Your task to perform on an android device: Open notification settings Image 0: 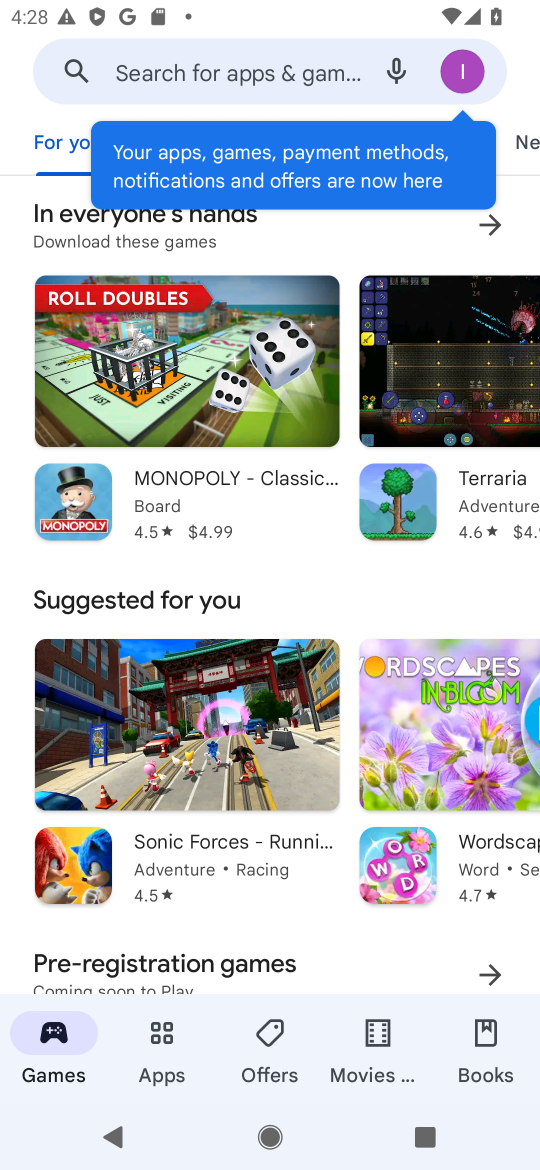
Step 0: press home button
Your task to perform on an android device: Open notification settings Image 1: 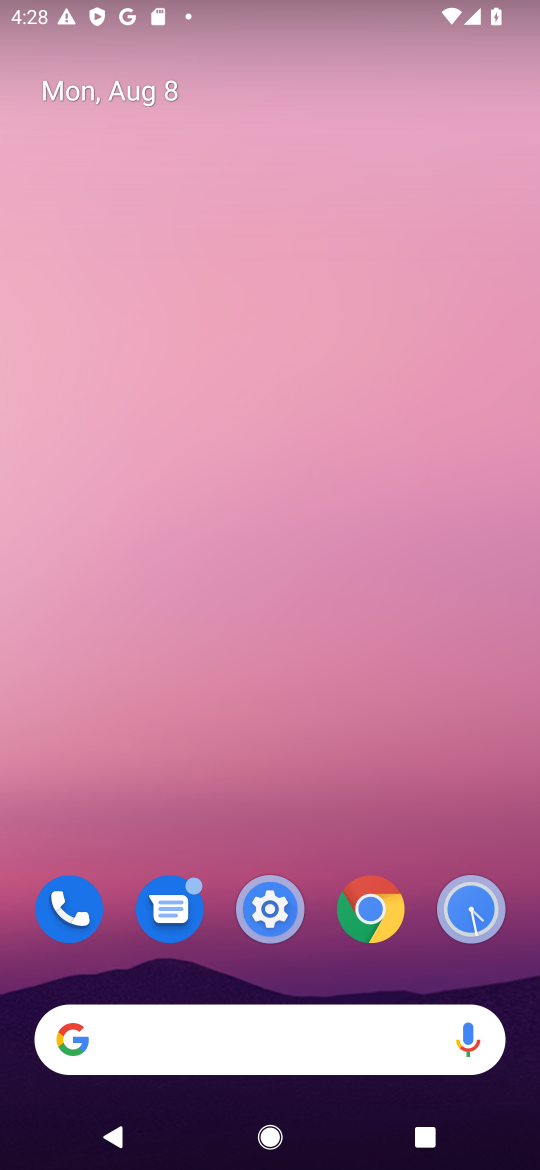
Step 1: click (264, 917)
Your task to perform on an android device: Open notification settings Image 2: 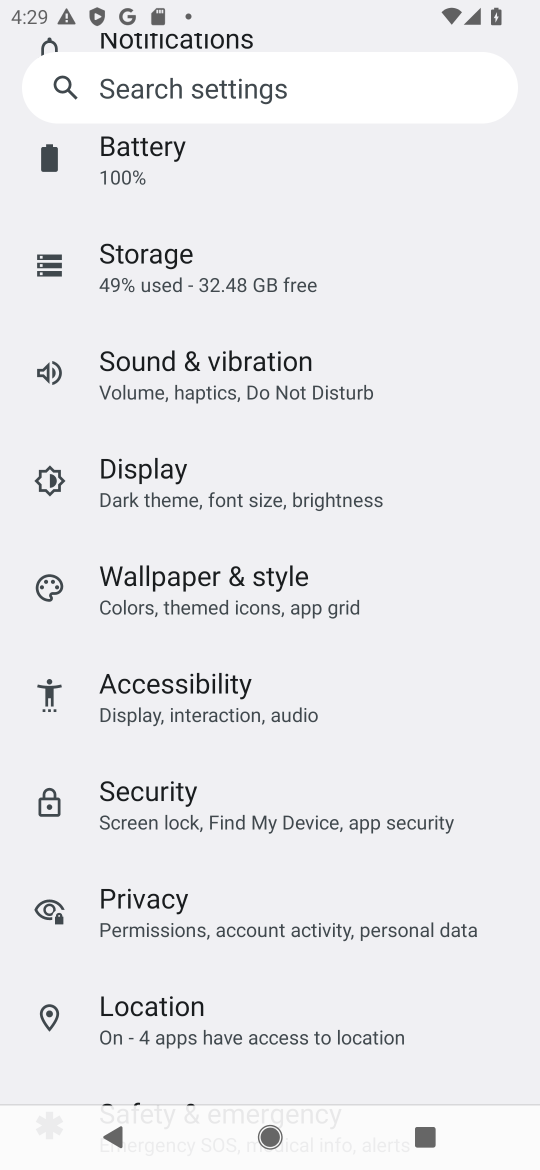
Step 2: drag from (315, 245) to (376, 1047)
Your task to perform on an android device: Open notification settings Image 3: 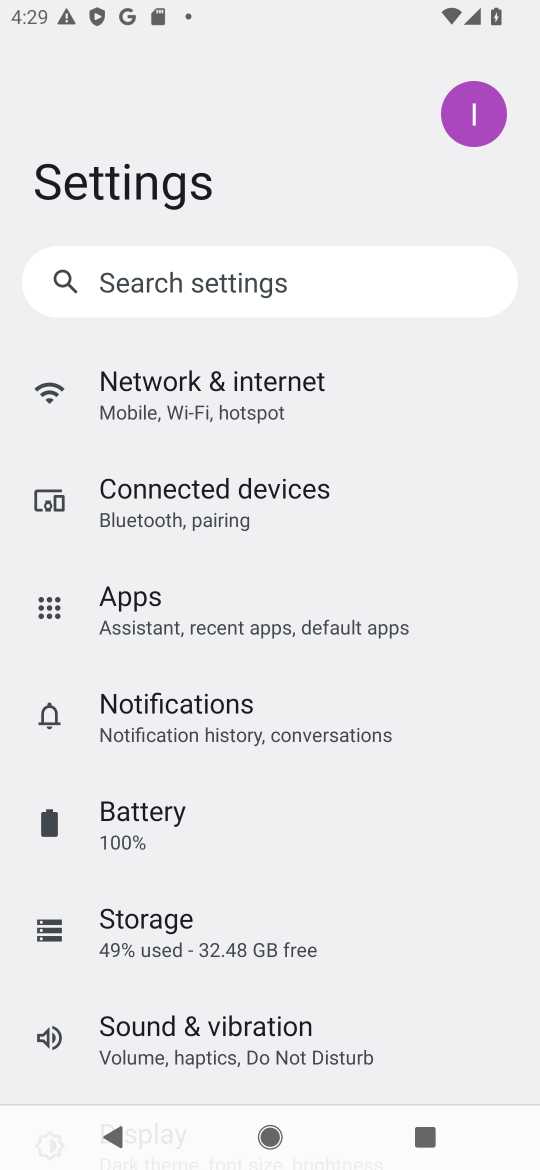
Step 3: click (166, 718)
Your task to perform on an android device: Open notification settings Image 4: 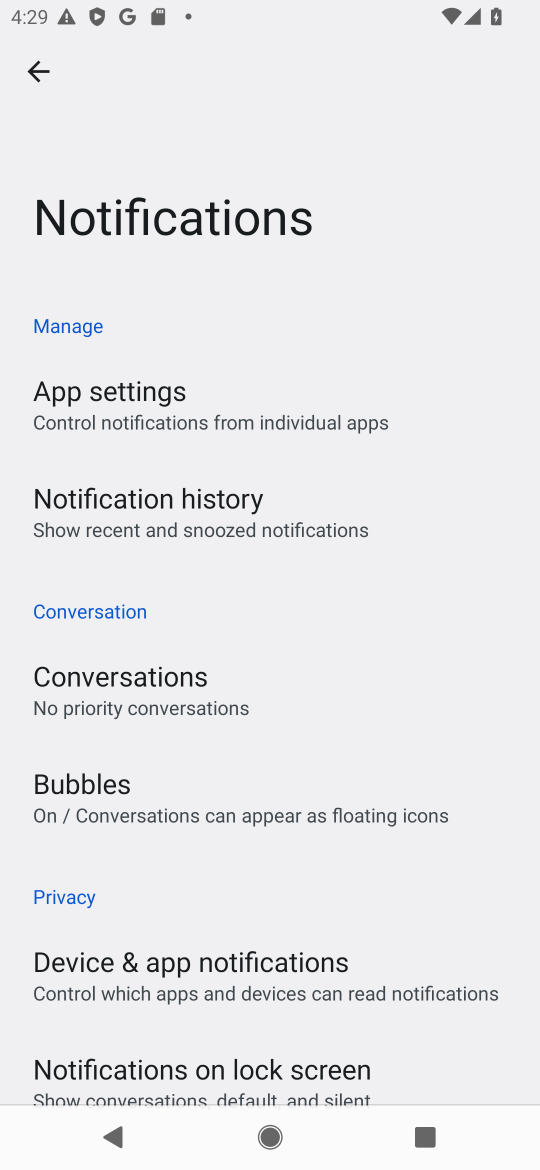
Step 4: task complete